Your task to perform on an android device: Search for a new mascara on Sephora Image 0: 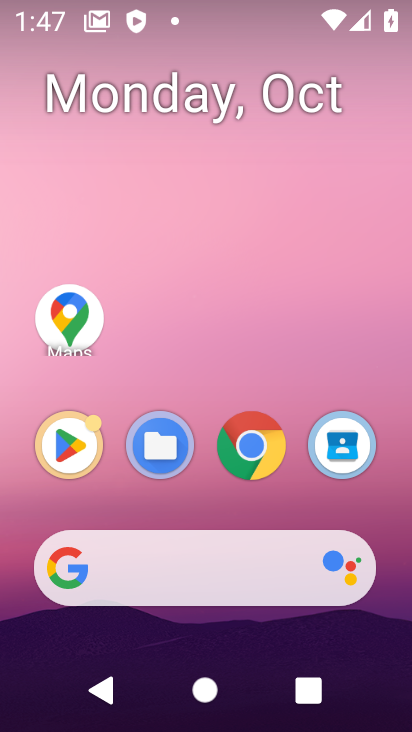
Step 0: click (176, 558)
Your task to perform on an android device: Search for a new mascara on Sephora Image 1: 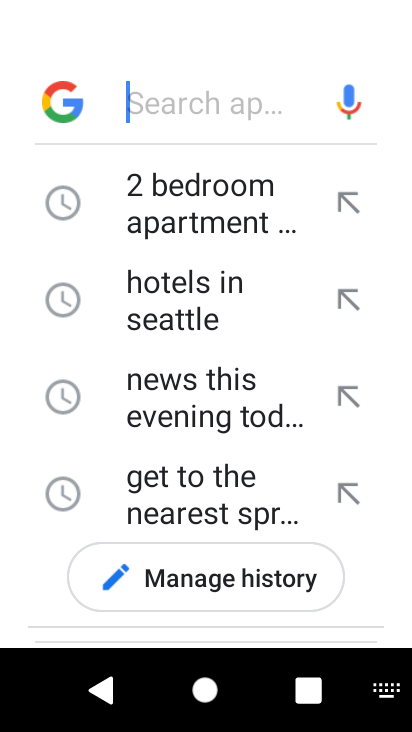
Step 1: type "new mascara on Sephora"
Your task to perform on an android device: Search for a new mascara on Sephora Image 2: 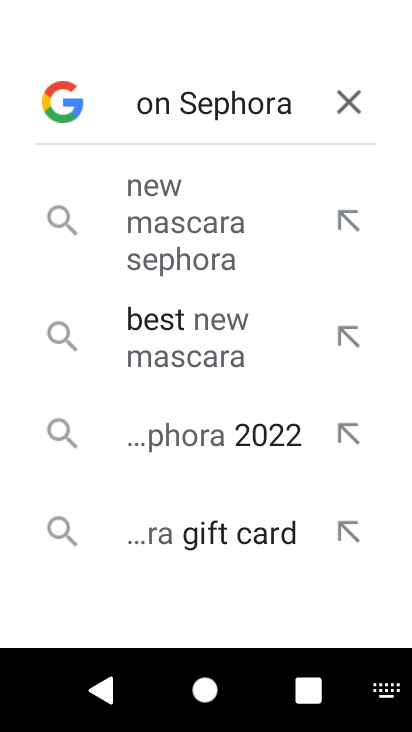
Step 2: type ""
Your task to perform on an android device: Search for a new mascara on Sephora Image 3: 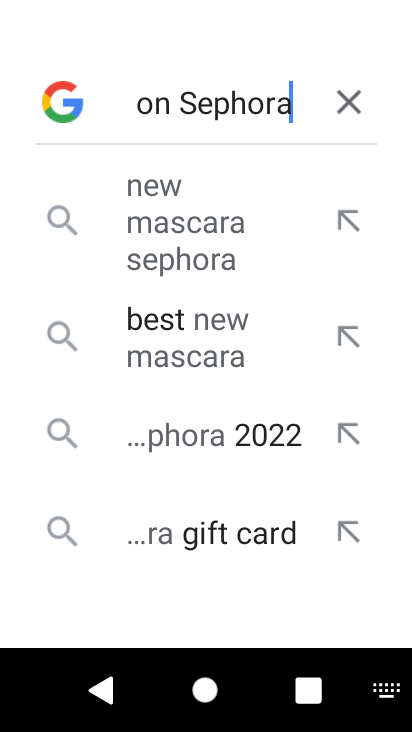
Step 3: click (217, 225)
Your task to perform on an android device: Search for a new mascara on Sephora Image 4: 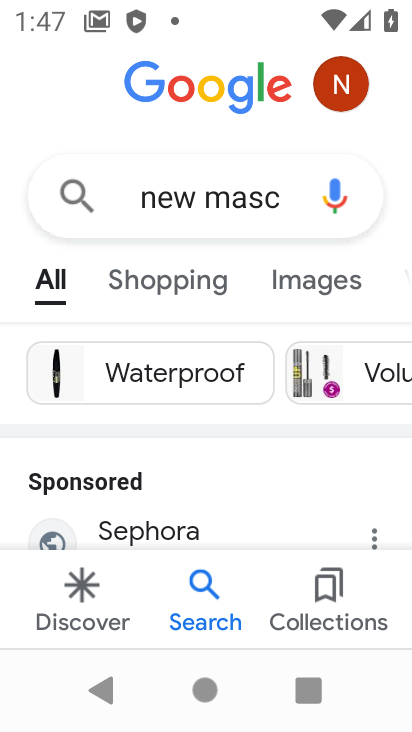
Step 4: drag from (302, 489) to (370, 196)
Your task to perform on an android device: Search for a new mascara on Sephora Image 5: 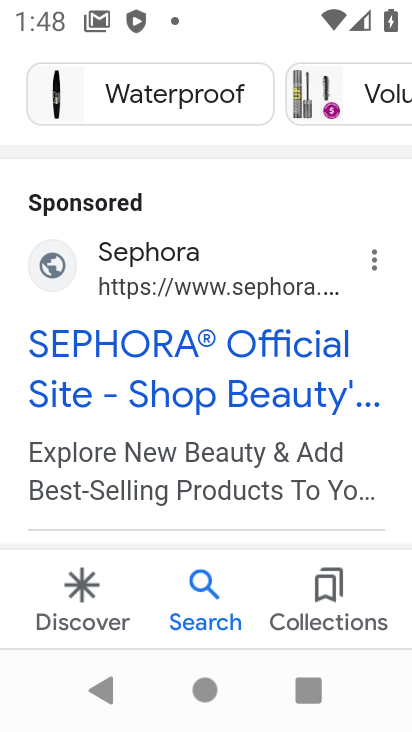
Step 5: click (217, 377)
Your task to perform on an android device: Search for a new mascara on Sephora Image 6: 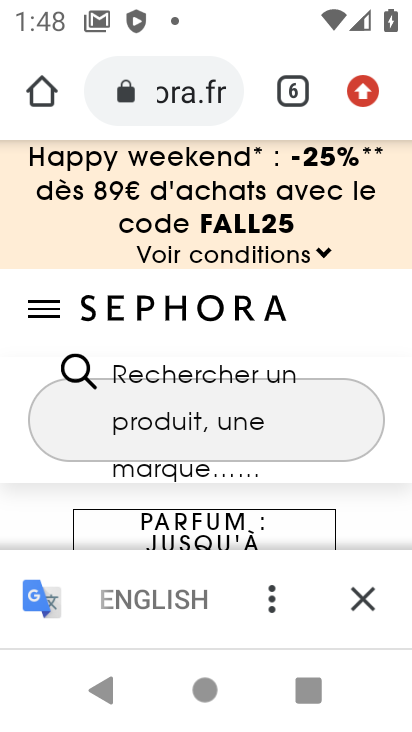
Step 6: click (175, 423)
Your task to perform on an android device: Search for a new mascara on Sephora Image 7: 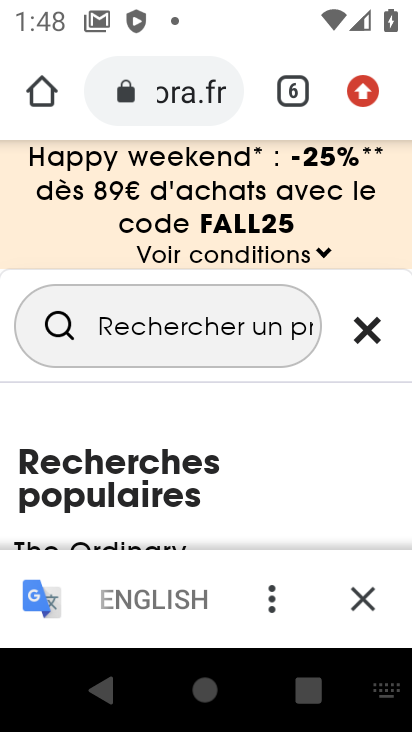
Step 7: type " new mascara"
Your task to perform on an android device: Search for a new mascara on Sephora Image 8: 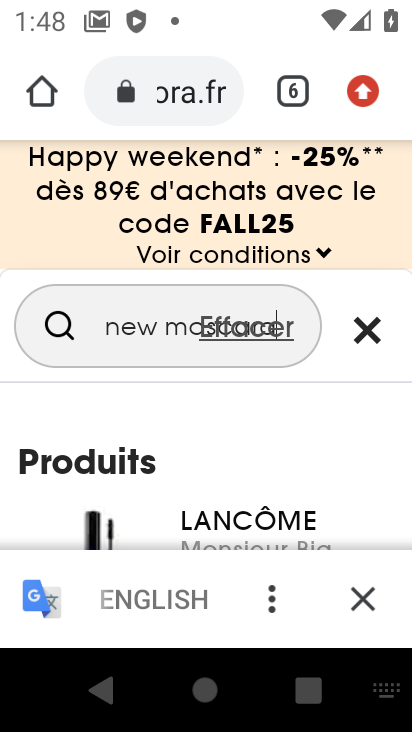
Step 8: type ""
Your task to perform on an android device: Search for a new mascara on Sephora Image 9: 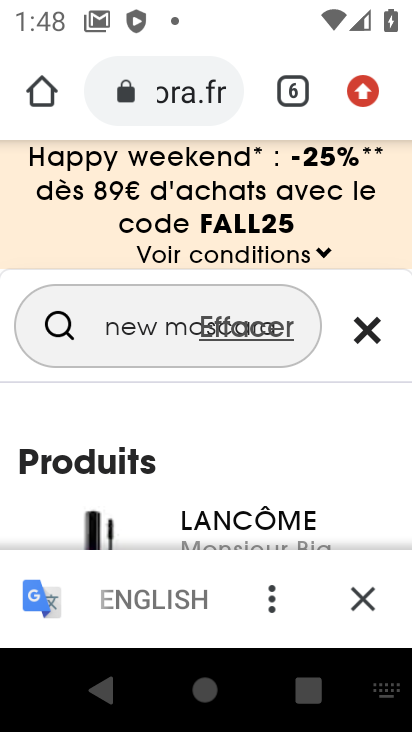
Step 9: task complete